Your task to perform on an android device: show emergency info Image 0: 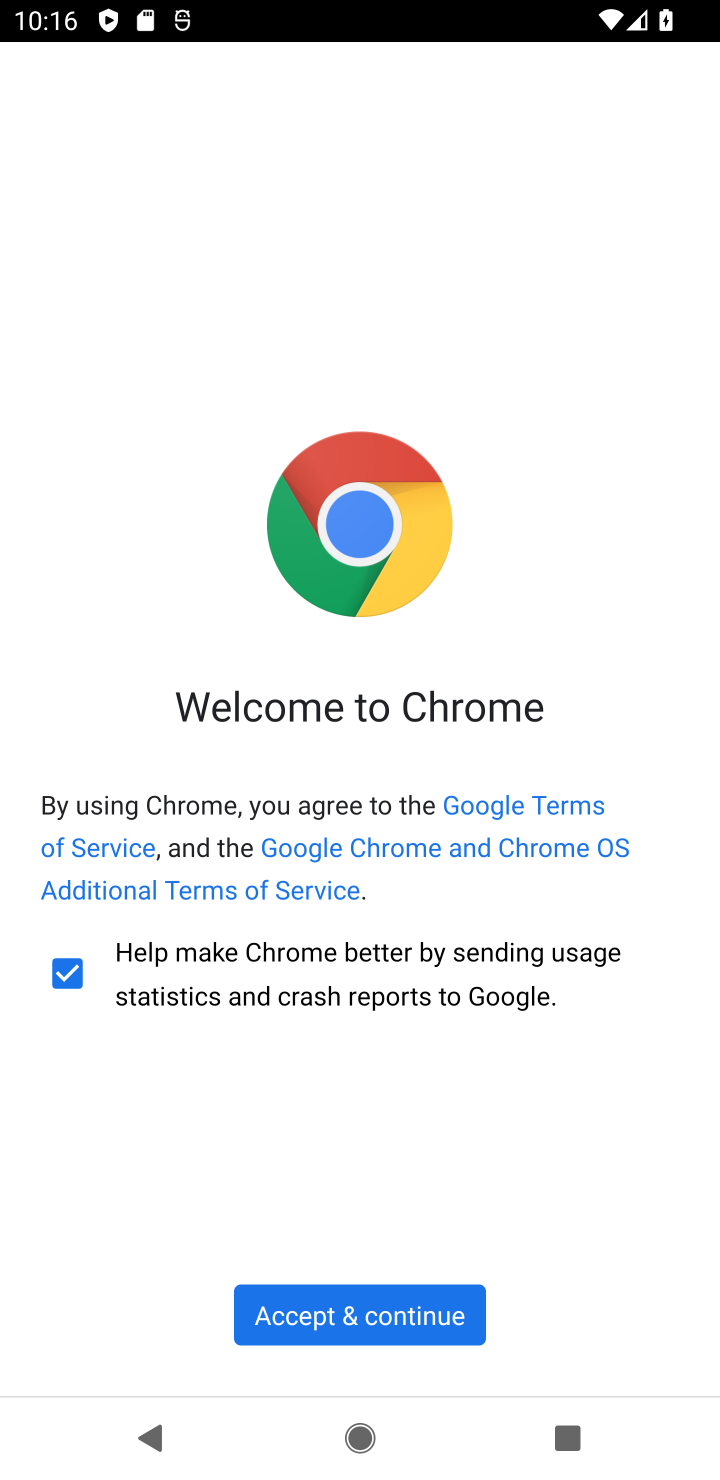
Step 0: press home button
Your task to perform on an android device: show emergency info Image 1: 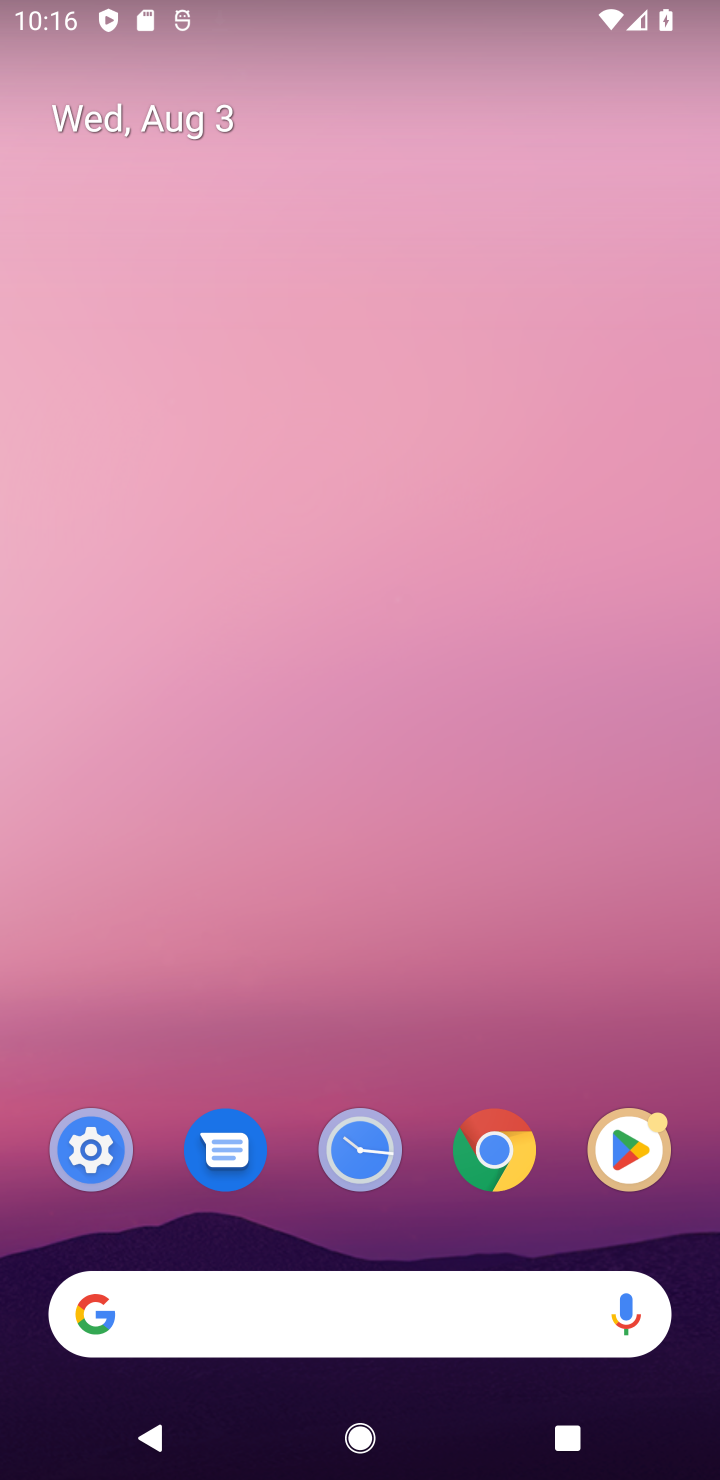
Step 1: drag from (556, 997) to (533, 299)
Your task to perform on an android device: show emergency info Image 2: 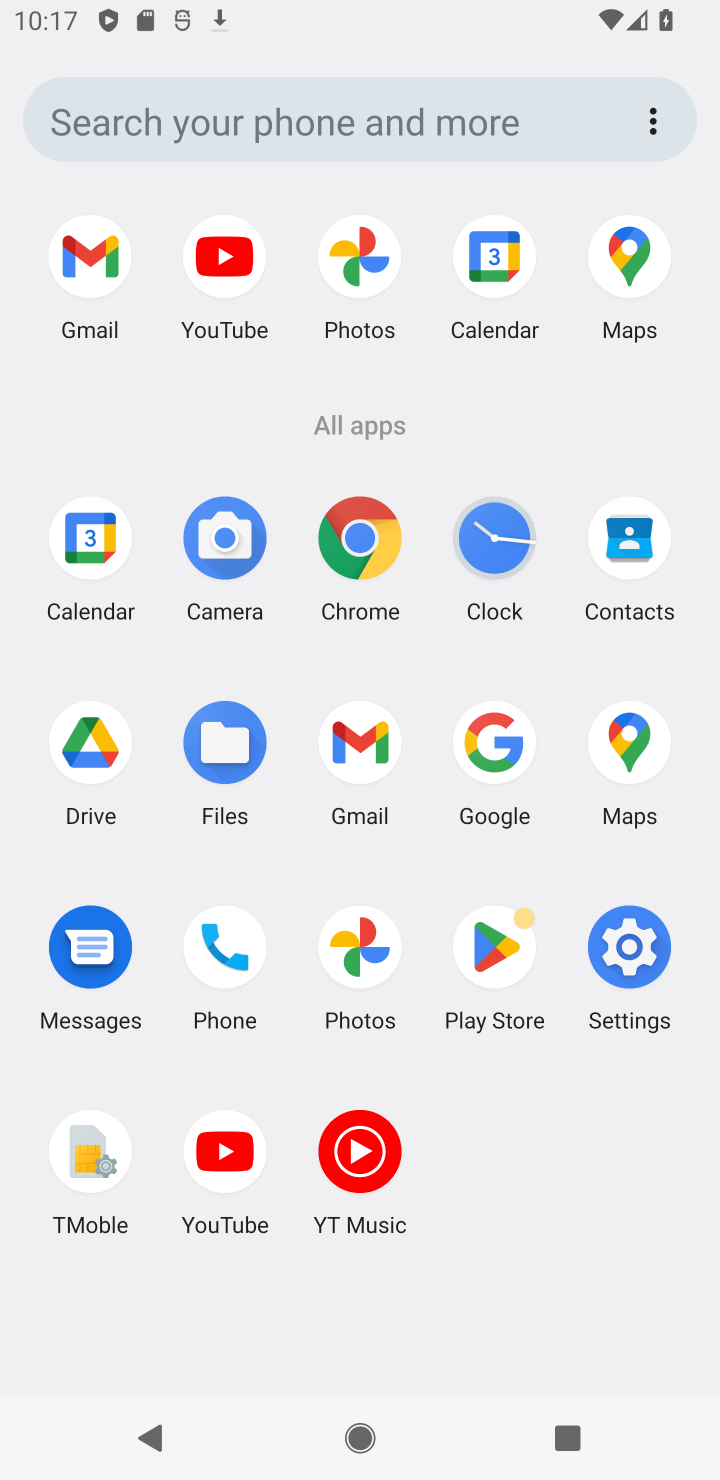
Step 2: click (627, 962)
Your task to perform on an android device: show emergency info Image 3: 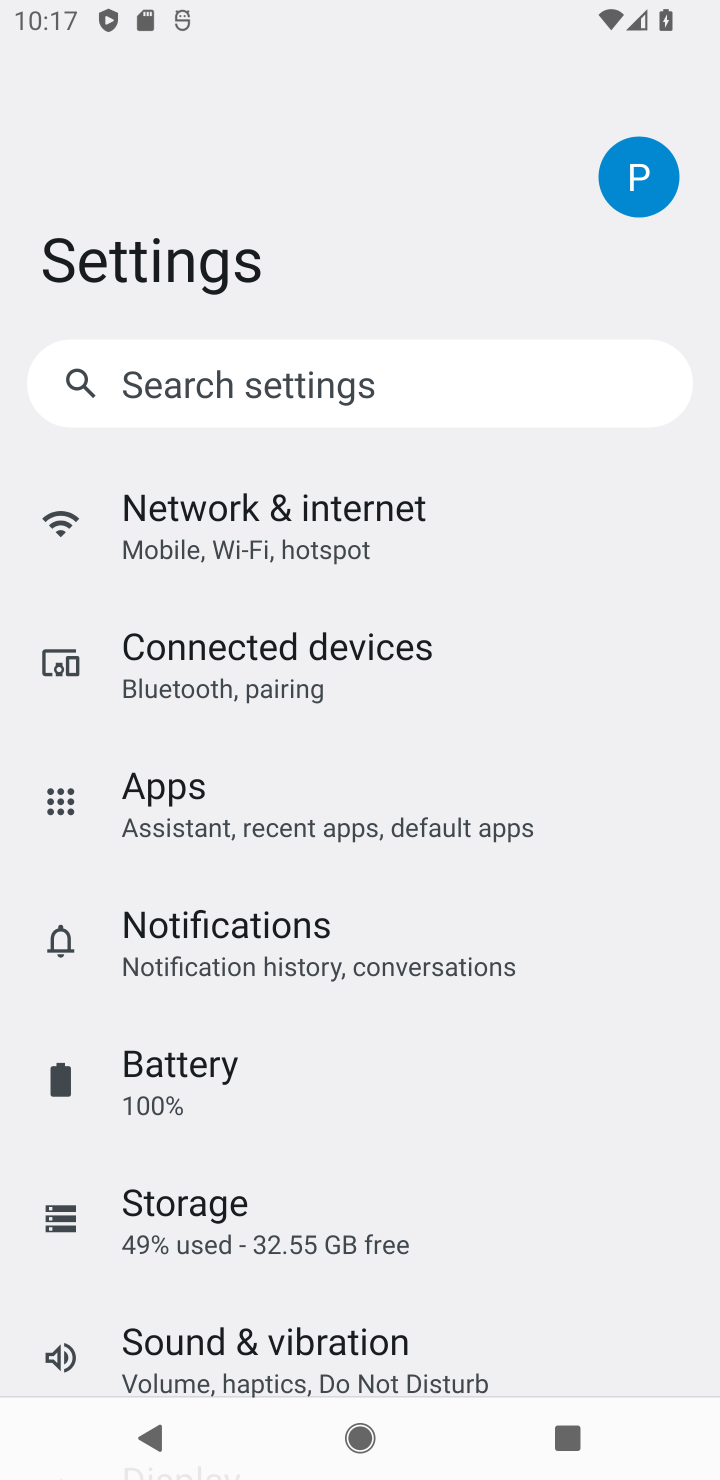
Step 3: drag from (615, 1059) to (615, 822)
Your task to perform on an android device: show emergency info Image 4: 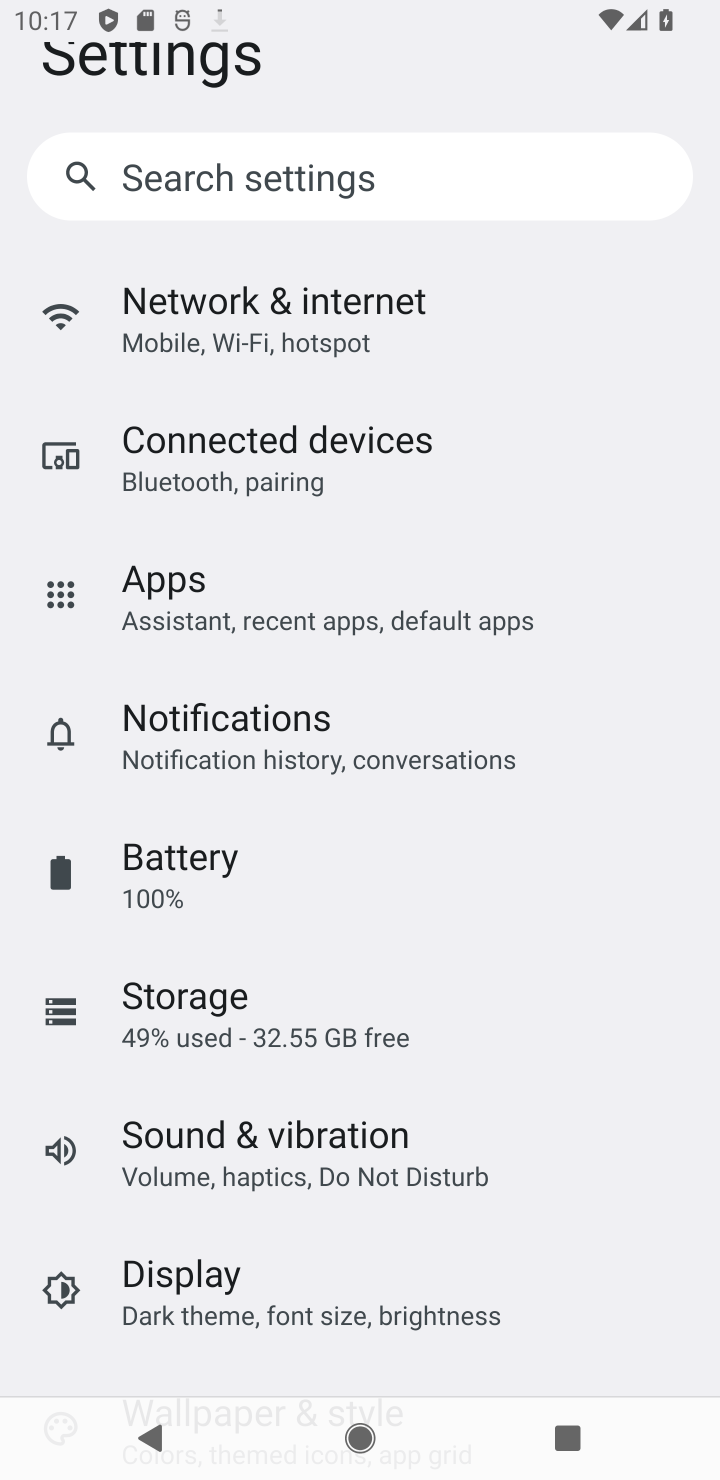
Step 4: drag from (579, 1015) to (574, 741)
Your task to perform on an android device: show emergency info Image 5: 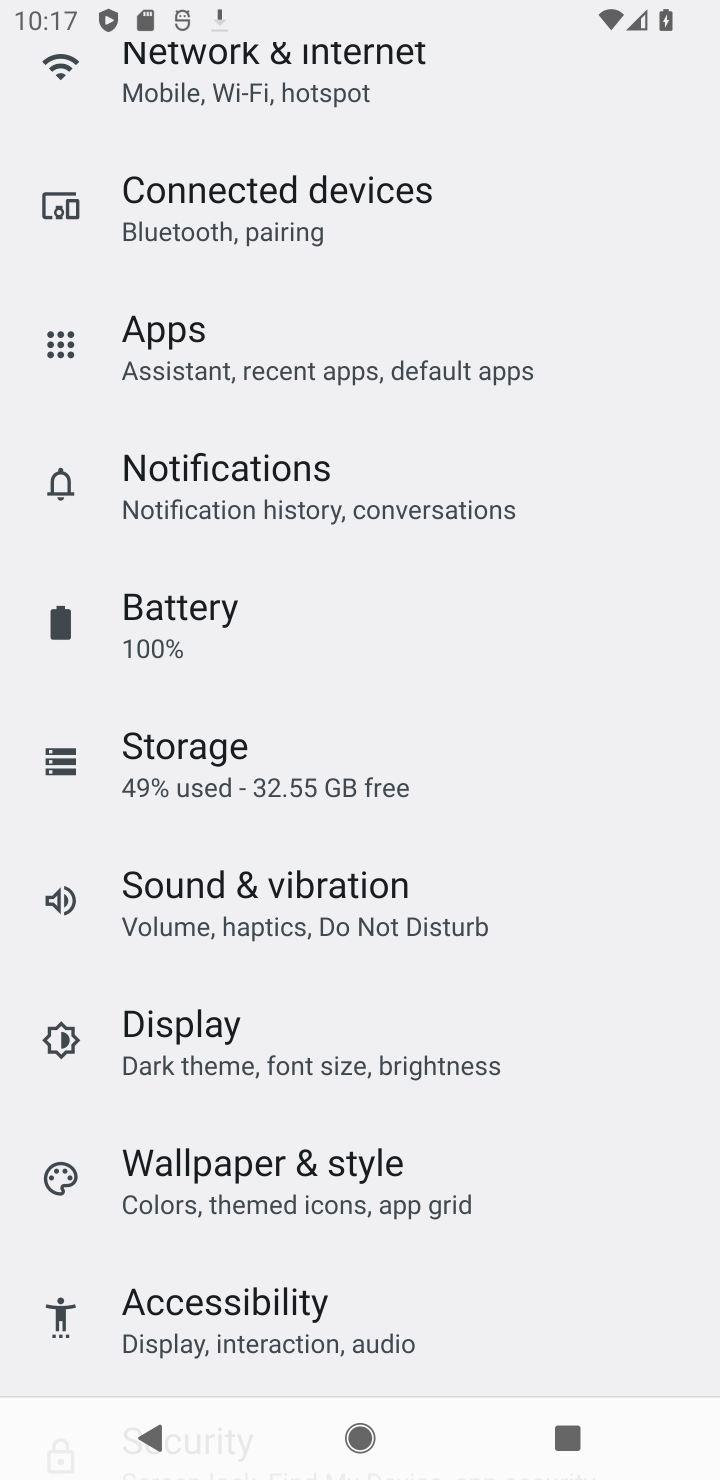
Step 5: drag from (627, 1134) to (616, 918)
Your task to perform on an android device: show emergency info Image 6: 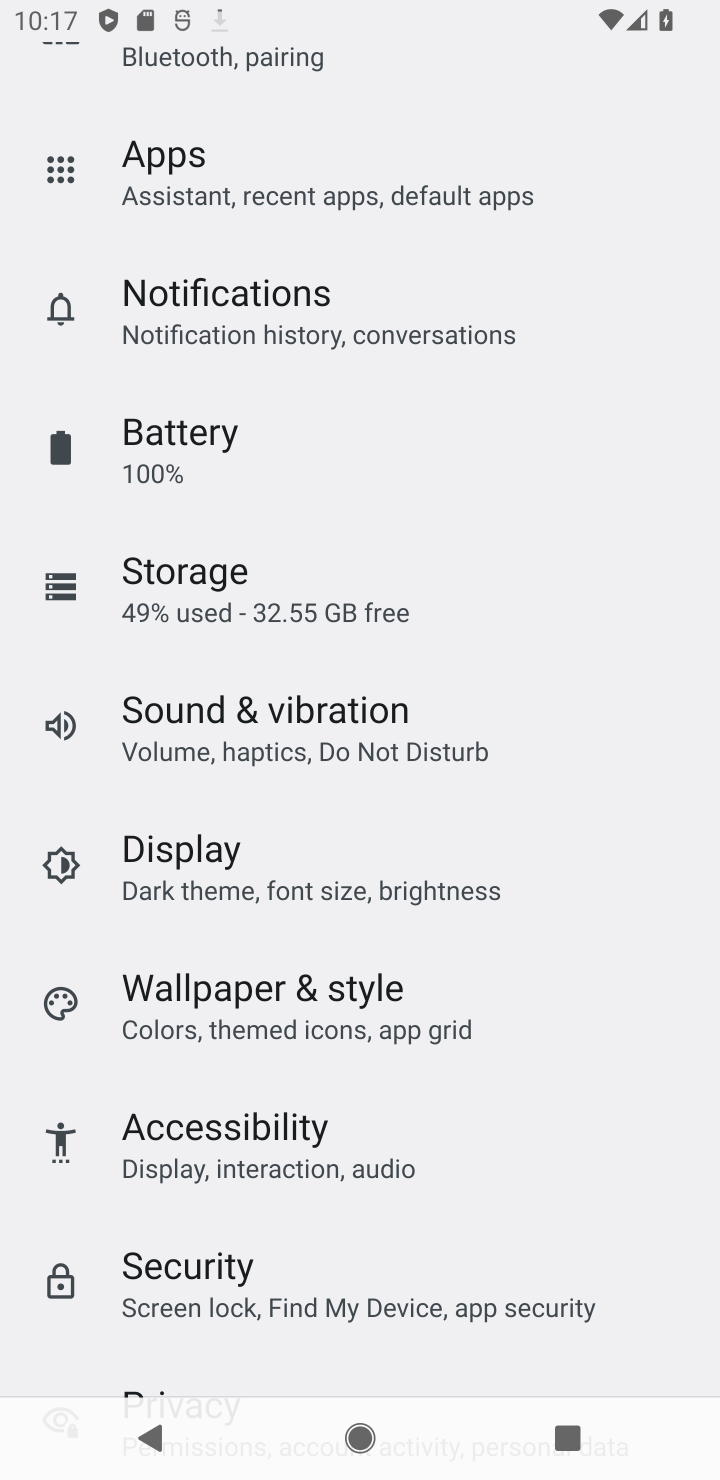
Step 6: drag from (604, 1246) to (610, 944)
Your task to perform on an android device: show emergency info Image 7: 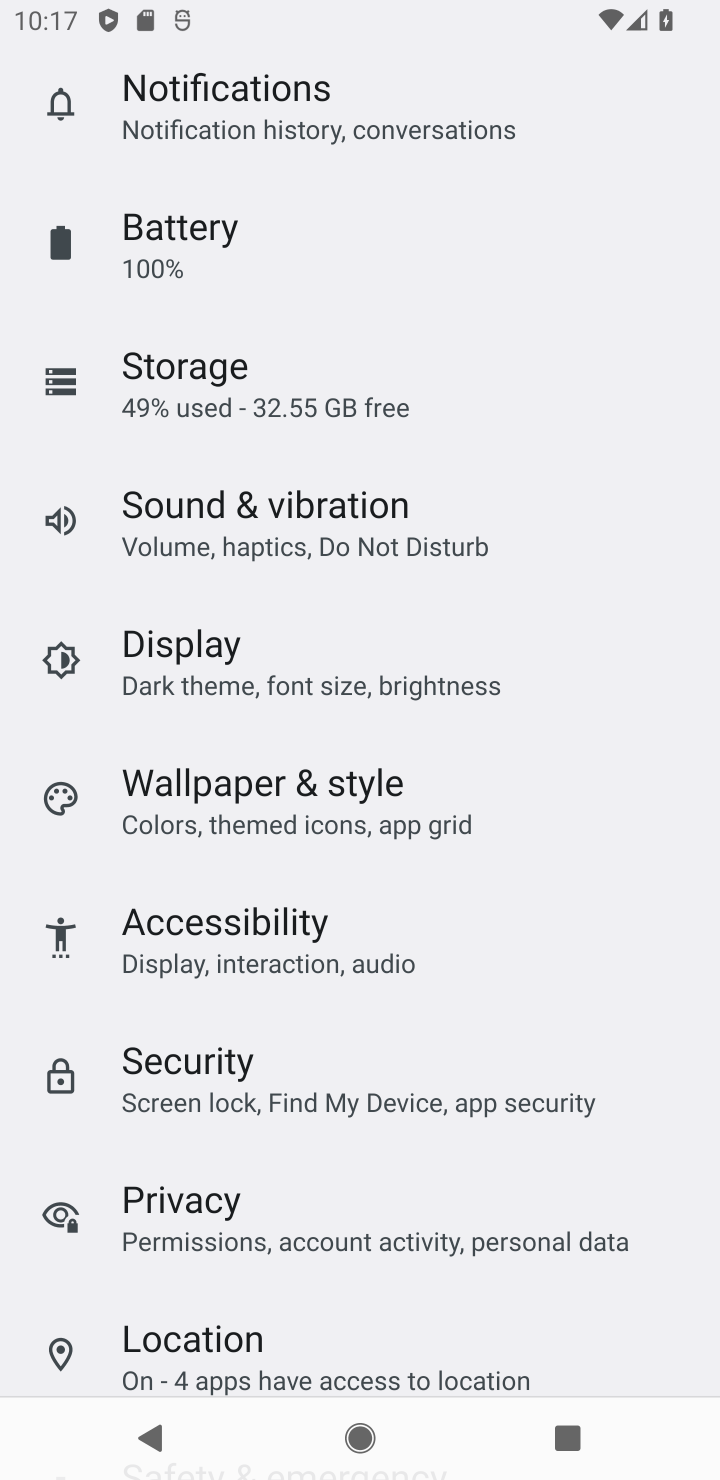
Step 7: drag from (640, 1265) to (640, 980)
Your task to perform on an android device: show emergency info Image 8: 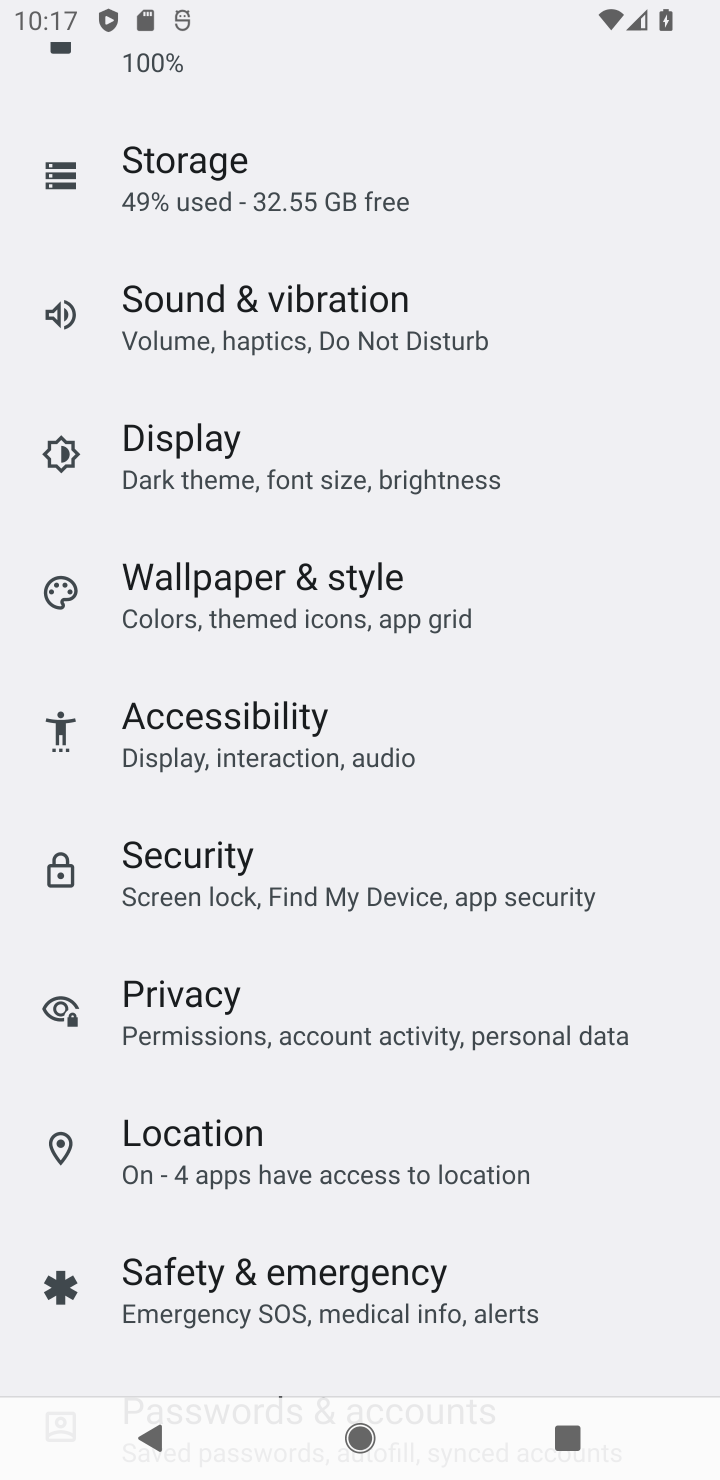
Step 8: drag from (623, 1287) to (606, 1028)
Your task to perform on an android device: show emergency info Image 9: 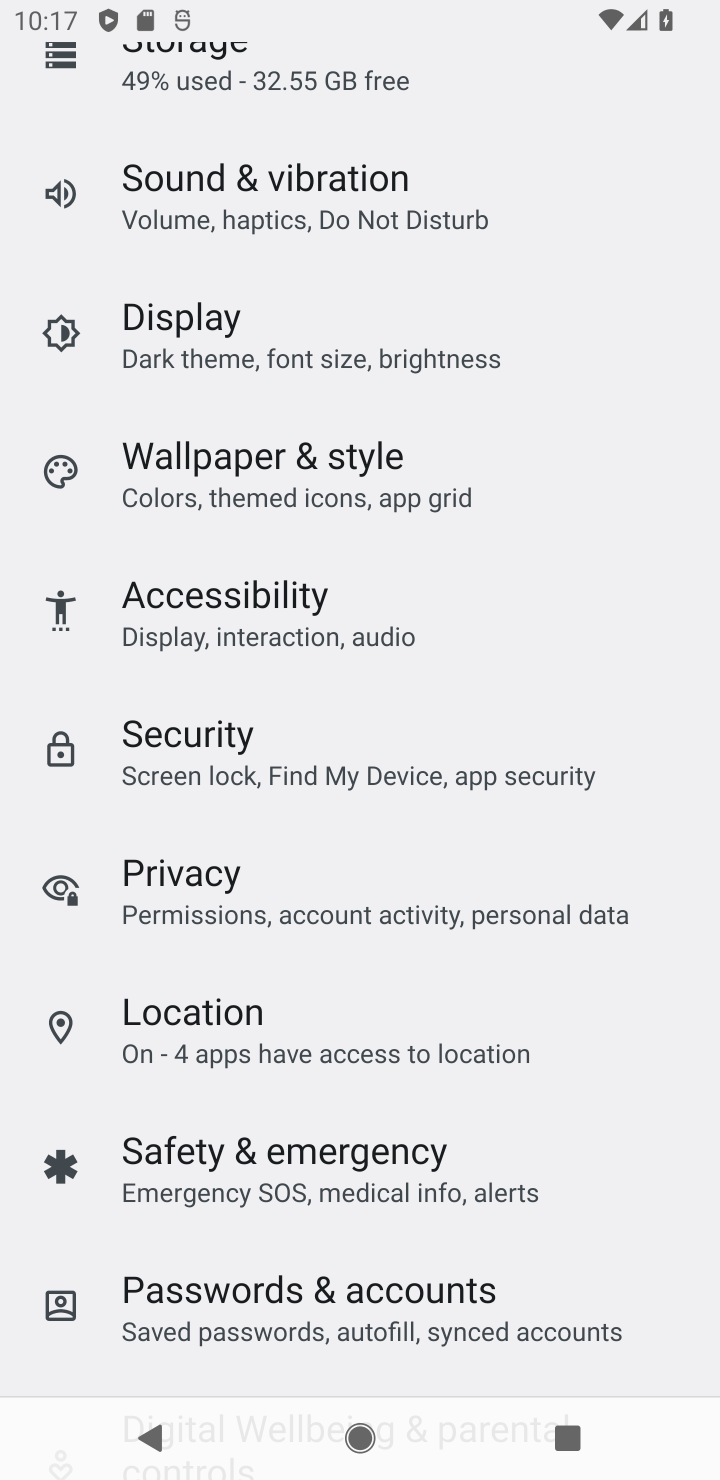
Step 9: drag from (639, 1332) to (647, 874)
Your task to perform on an android device: show emergency info Image 10: 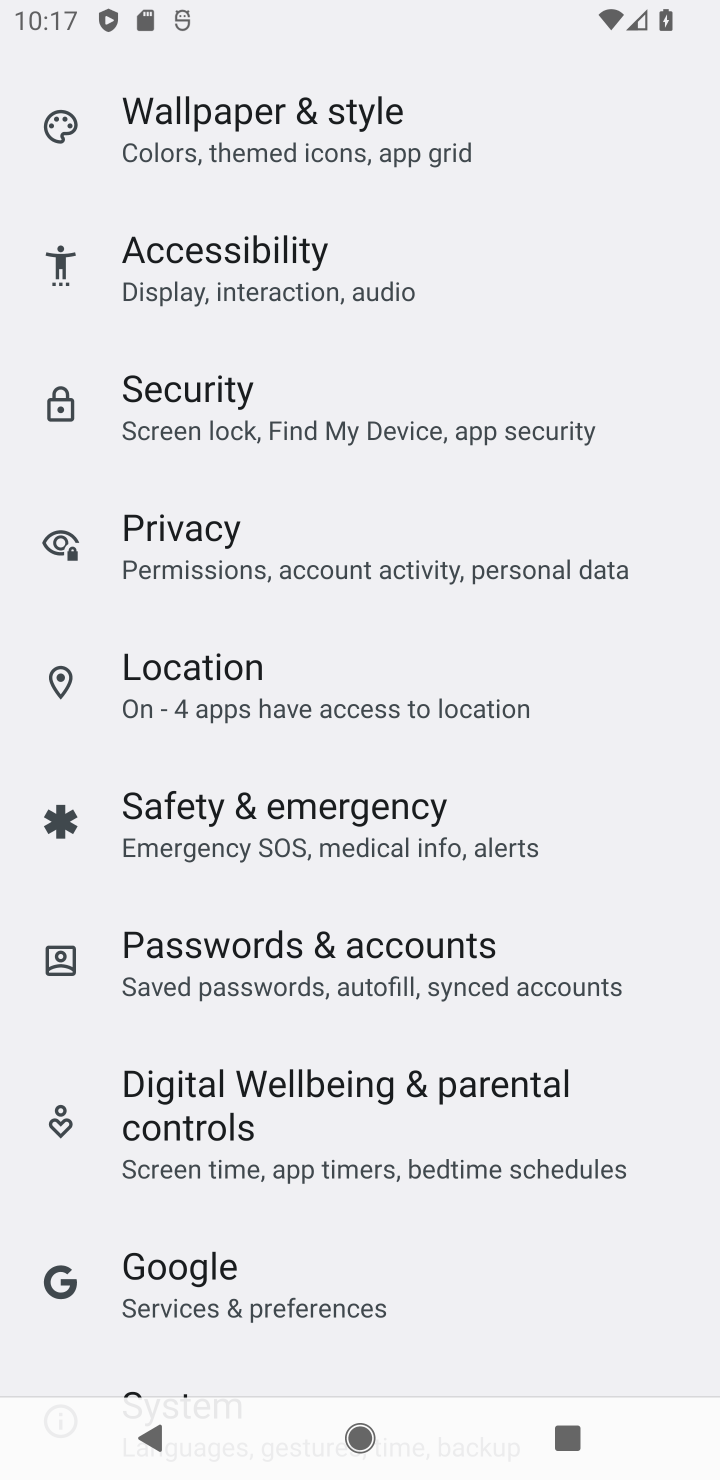
Step 10: drag from (598, 1264) to (614, 819)
Your task to perform on an android device: show emergency info Image 11: 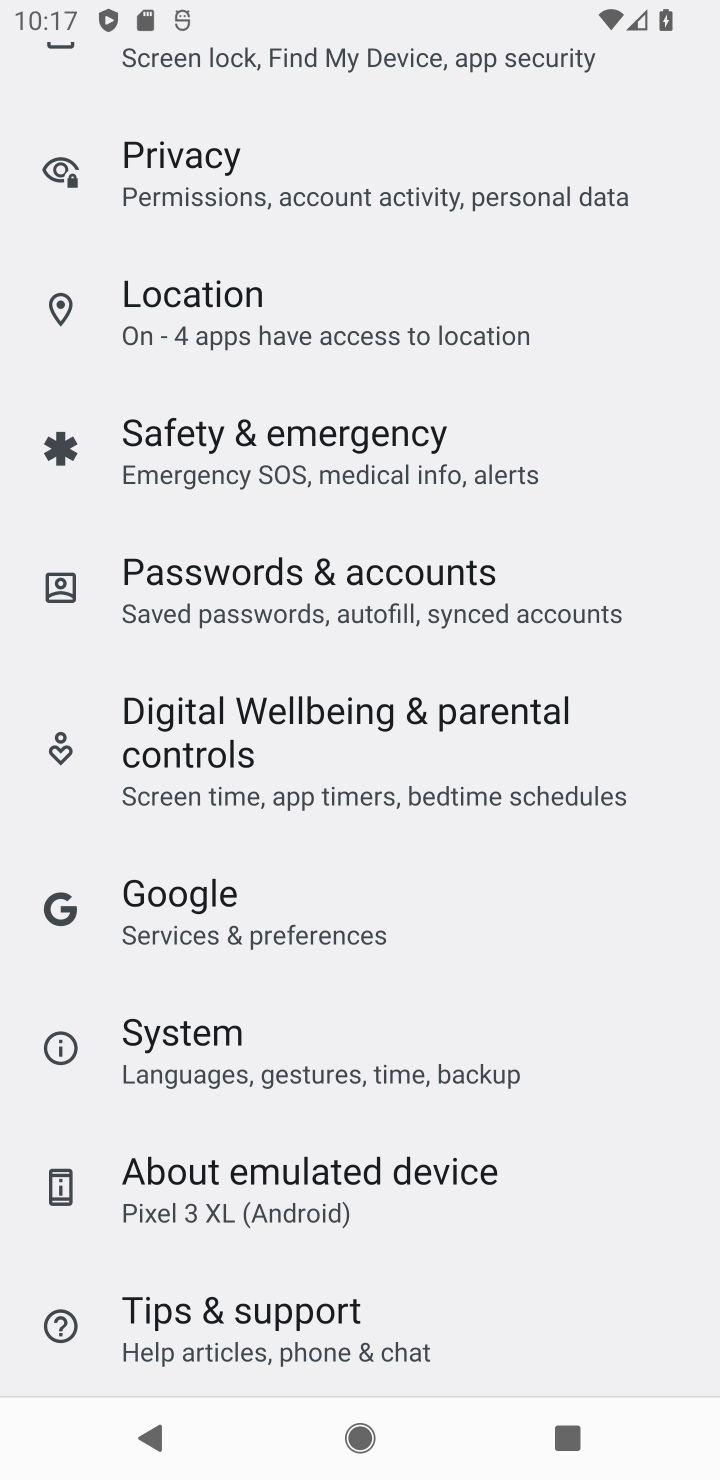
Step 11: click (465, 1191)
Your task to perform on an android device: show emergency info Image 12: 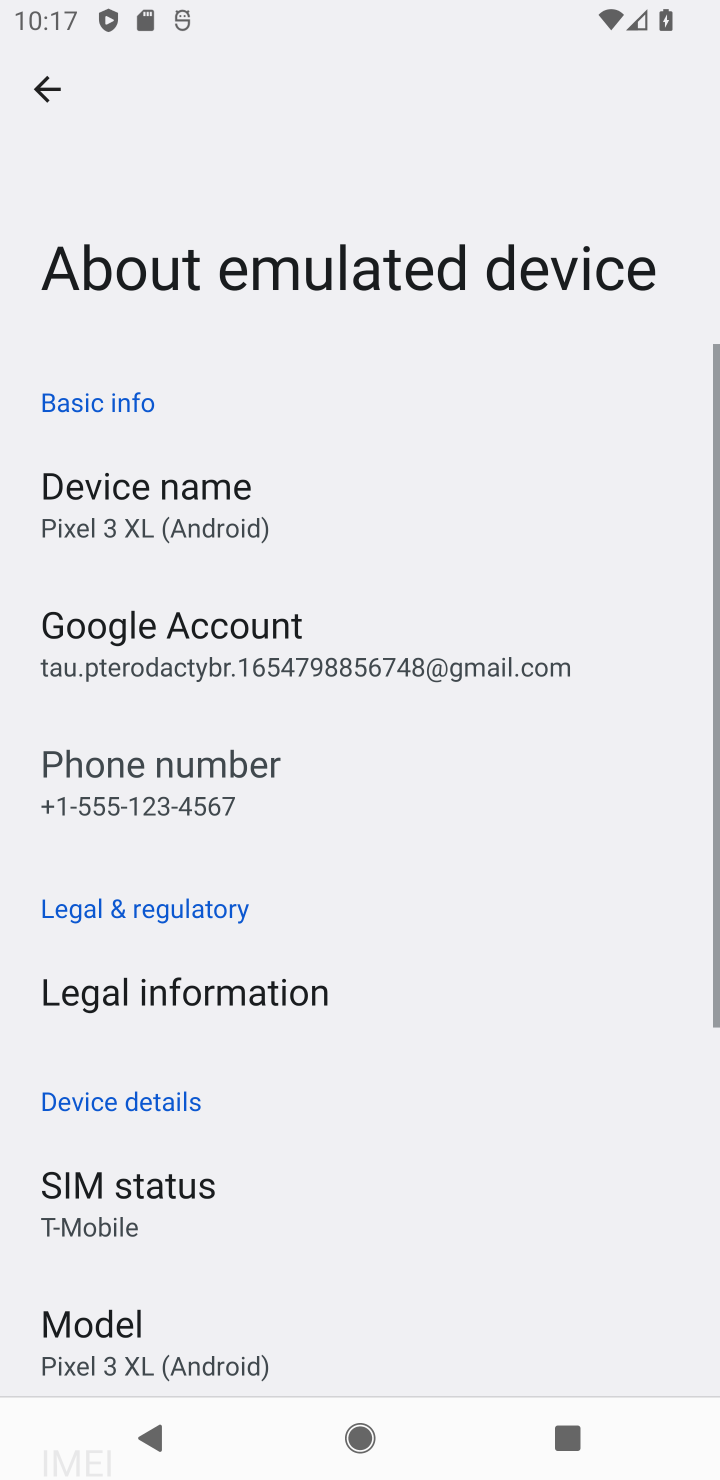
Step 12: drag from (497, 1119) to (518, 740)
Your task to perform on an android device: show emergency info Image 13: 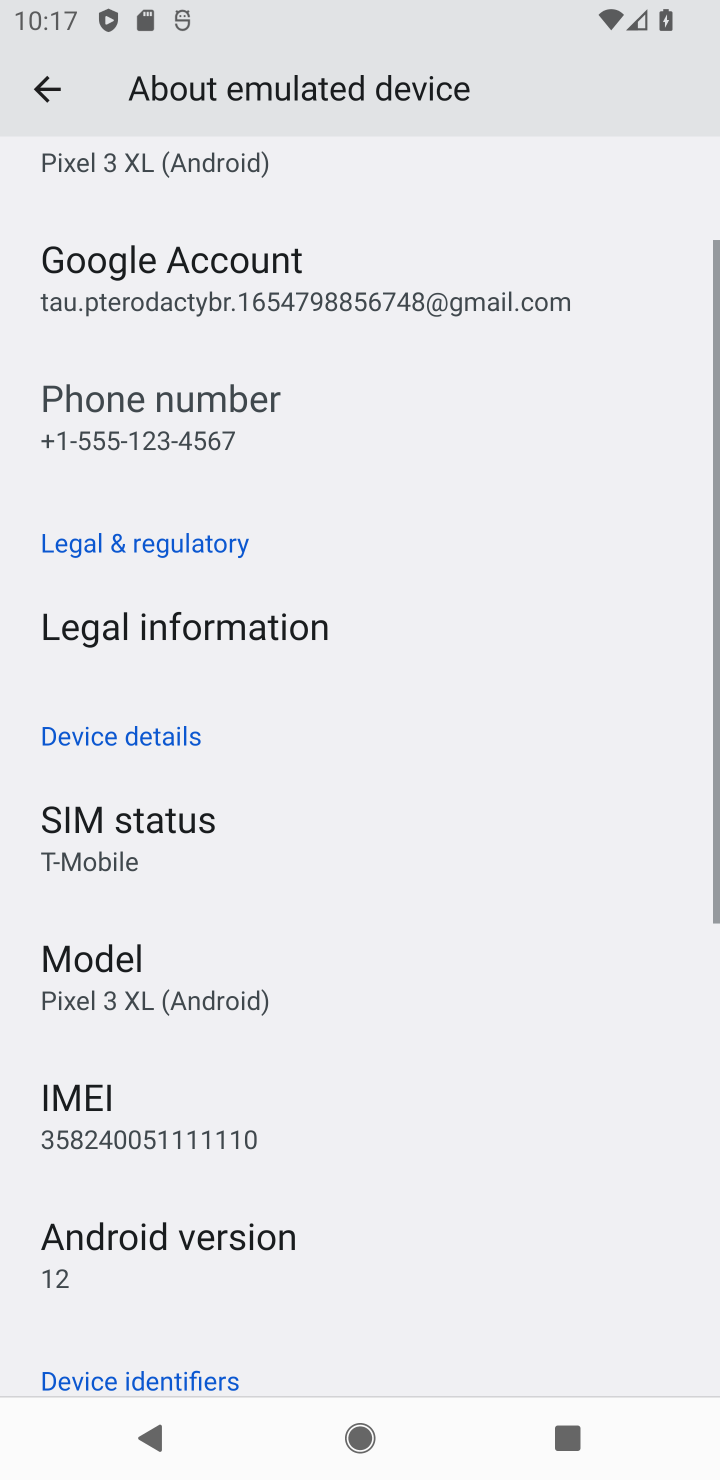
Step 13: drag from (512, 1091) to (509, 652)
Your task to perform on an android device: show emergency info Image 14: 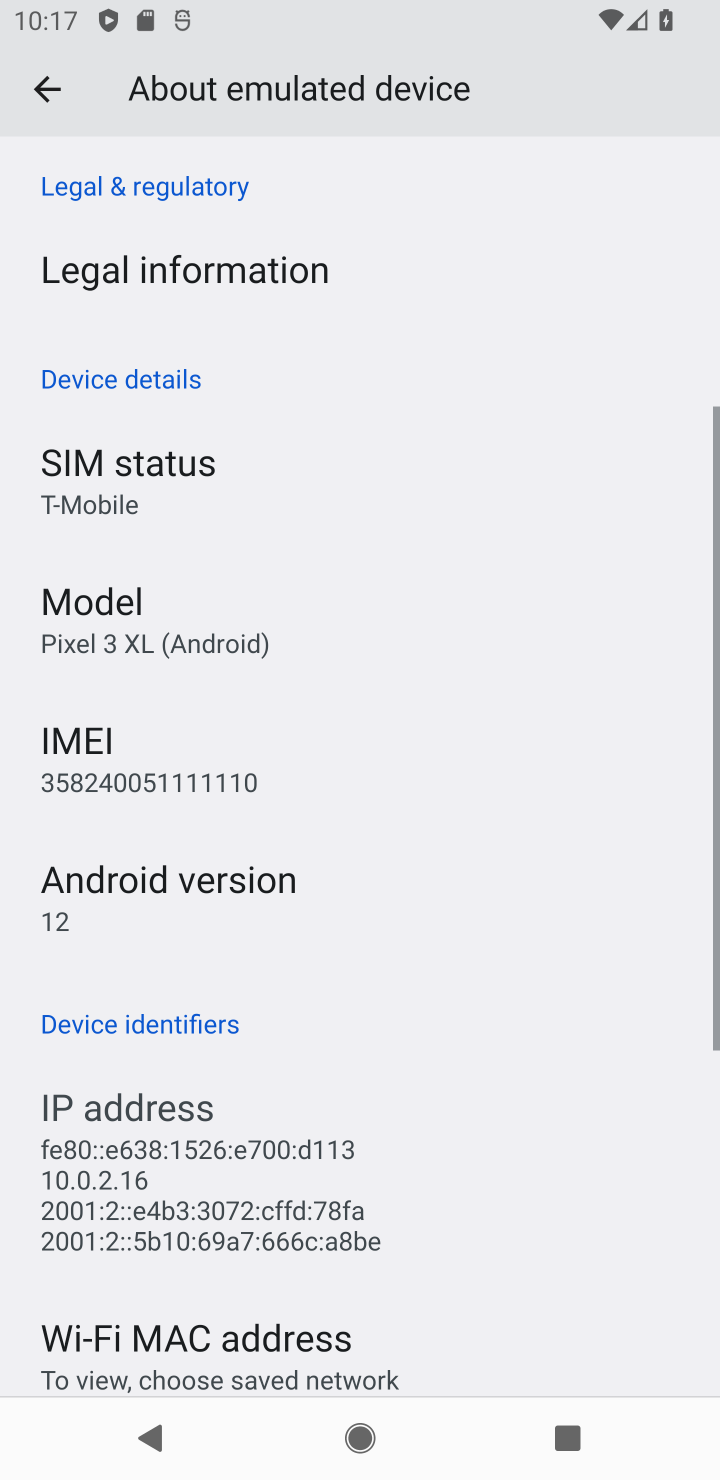
Step 14: drag from (497, 1045) to (572, 678)
Your task to perform on an android device: show emergency info Image 15: 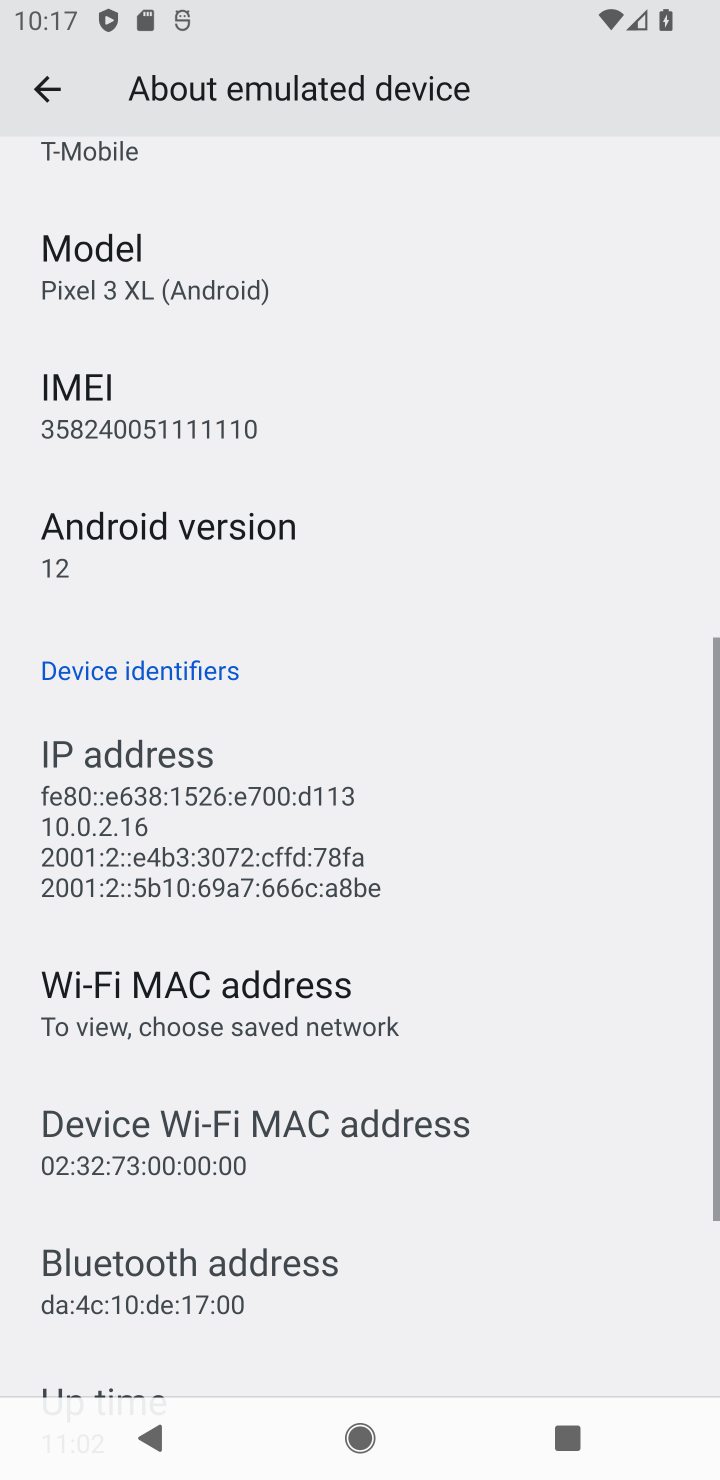
Step 15: drag from (537, 1222) to (575, 815)
Your task to perform on an android device: show emergency info Image 16: 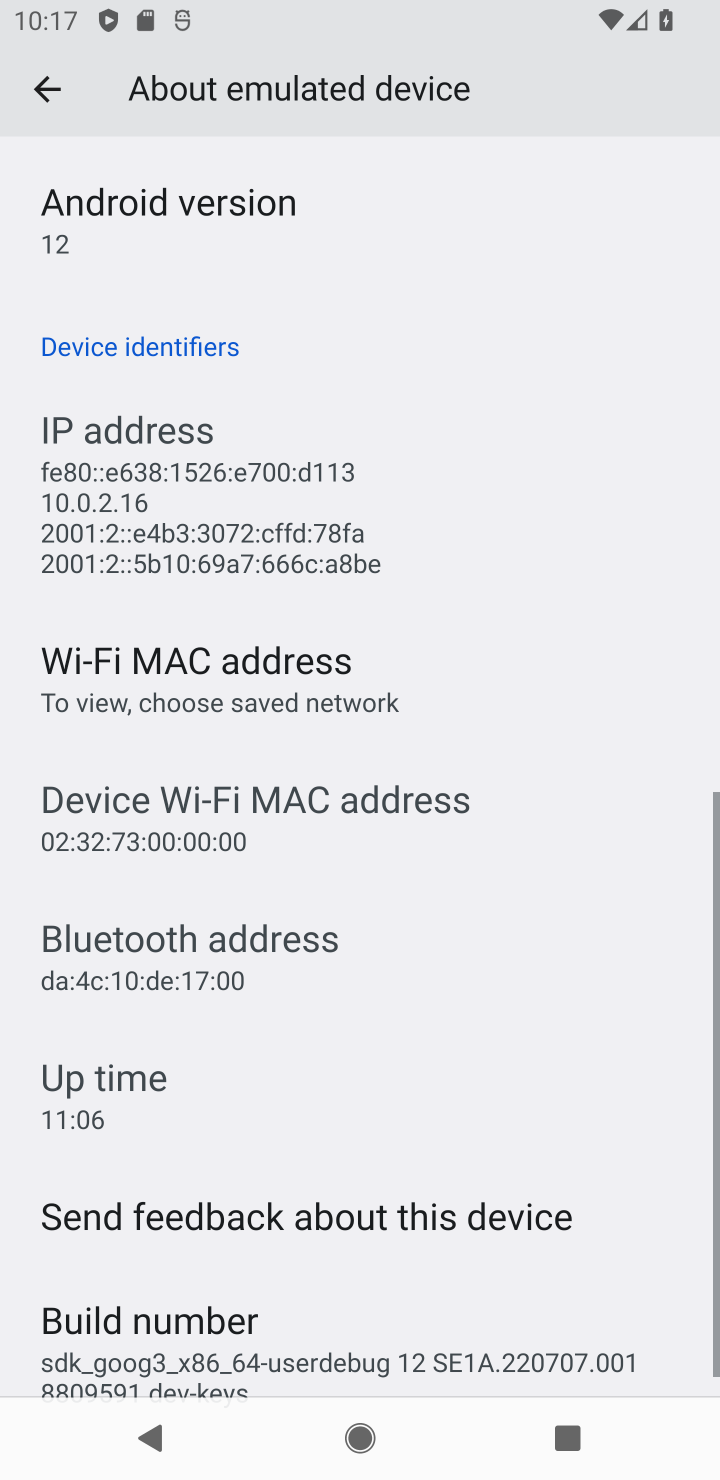
Step 16: drag from (527, 1289) to (520, 684)
Your task to perform on an android device: show emergency info Image 17: 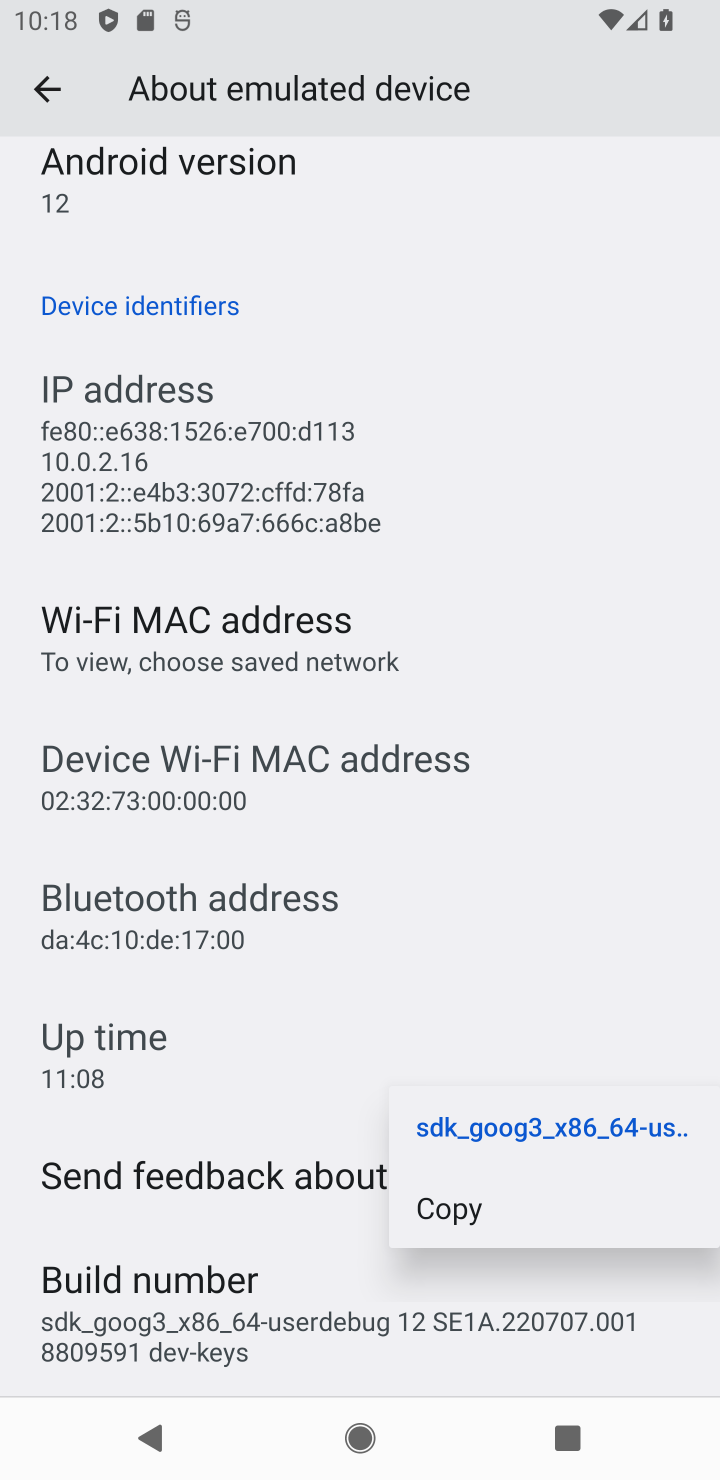
Step 17: drag from (547, 999) to (558, 523)
Your task to perform on an android device: show emergency info Image 18: 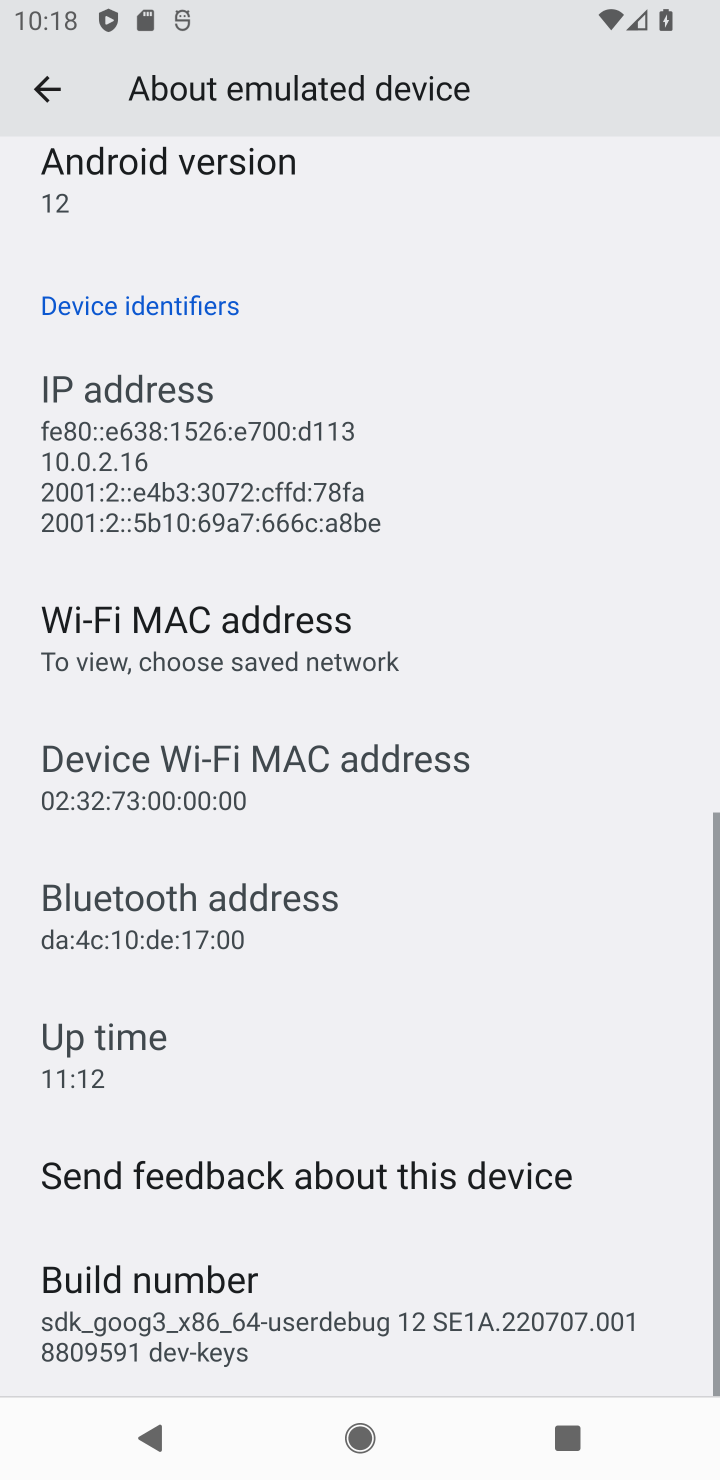
Step 18: drag from (565, 467) to (587, 909)
Your task to perform on an android device: show emergency info Image 19: 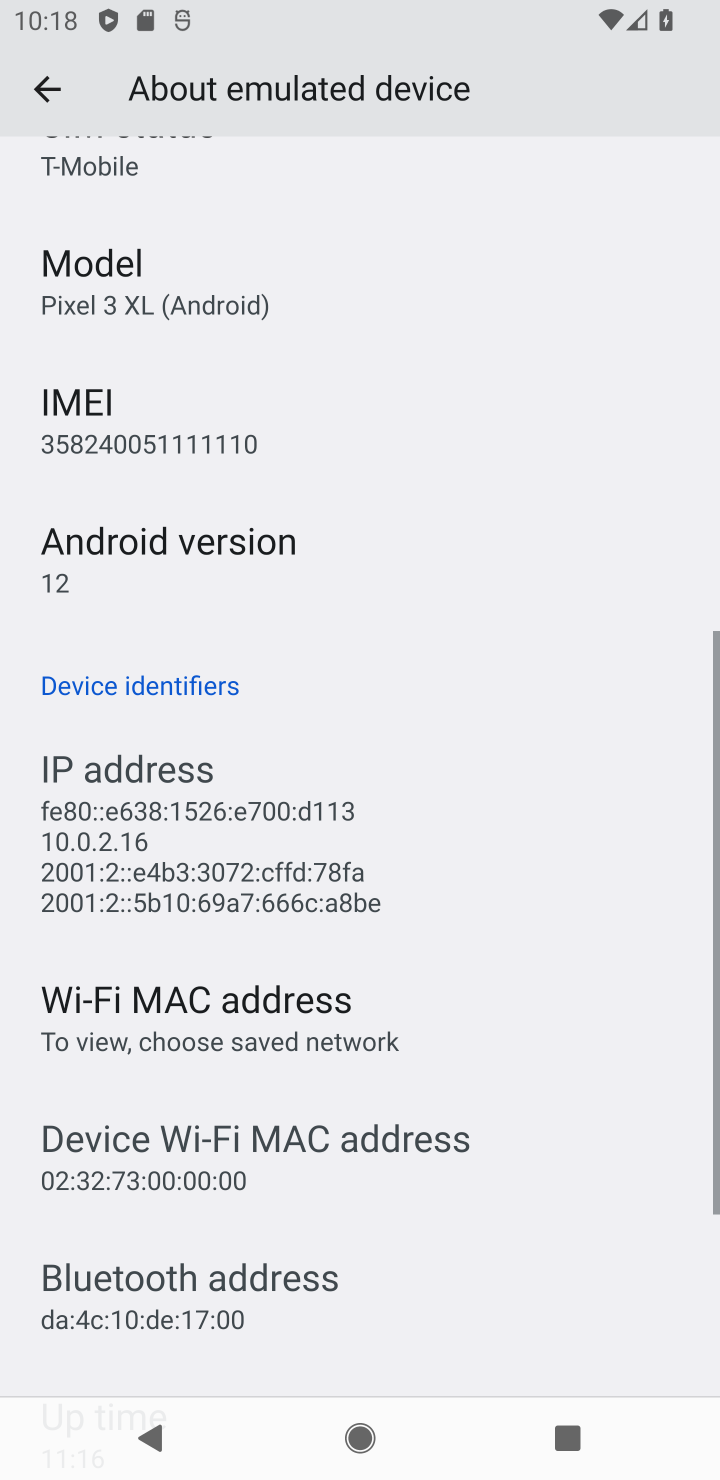
Step 19: drag from (548, 391) to (561, 1057)
Your task to perform on an android device: show emergency info Image 20: 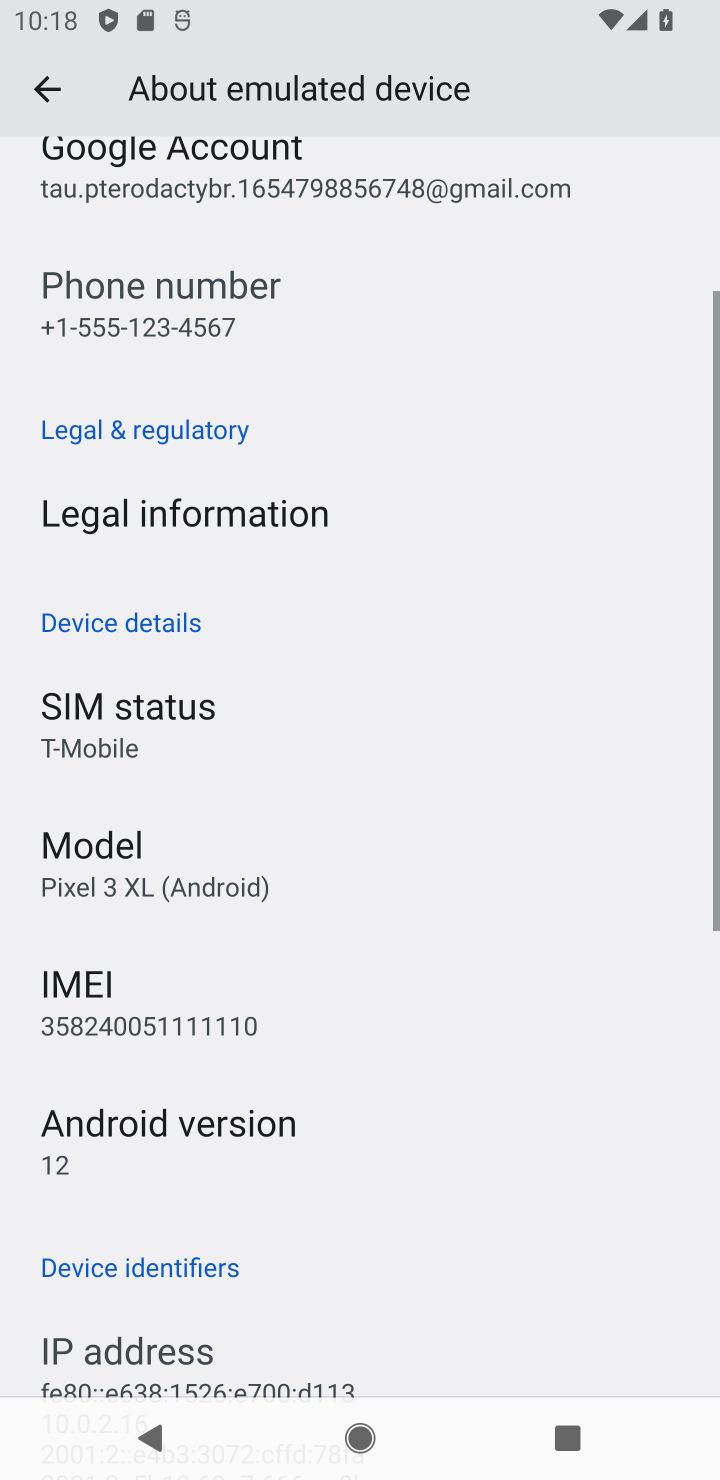
Step 20: drag from (573, 387) to (575, 890)
Your task to perform on an android device: show emergency info Image 21: 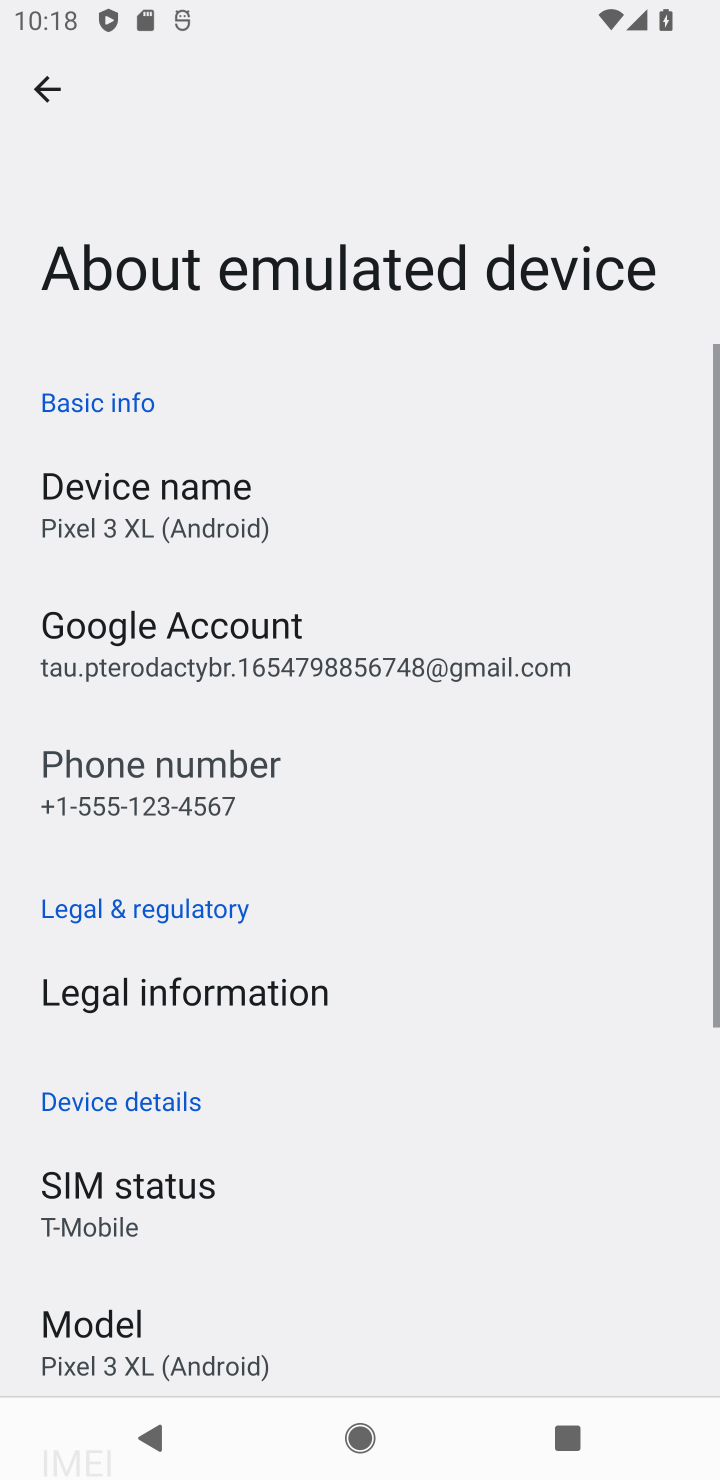
Step 21: click (47, 83)
Your task to perform on an android device: show emergency info Image 22: 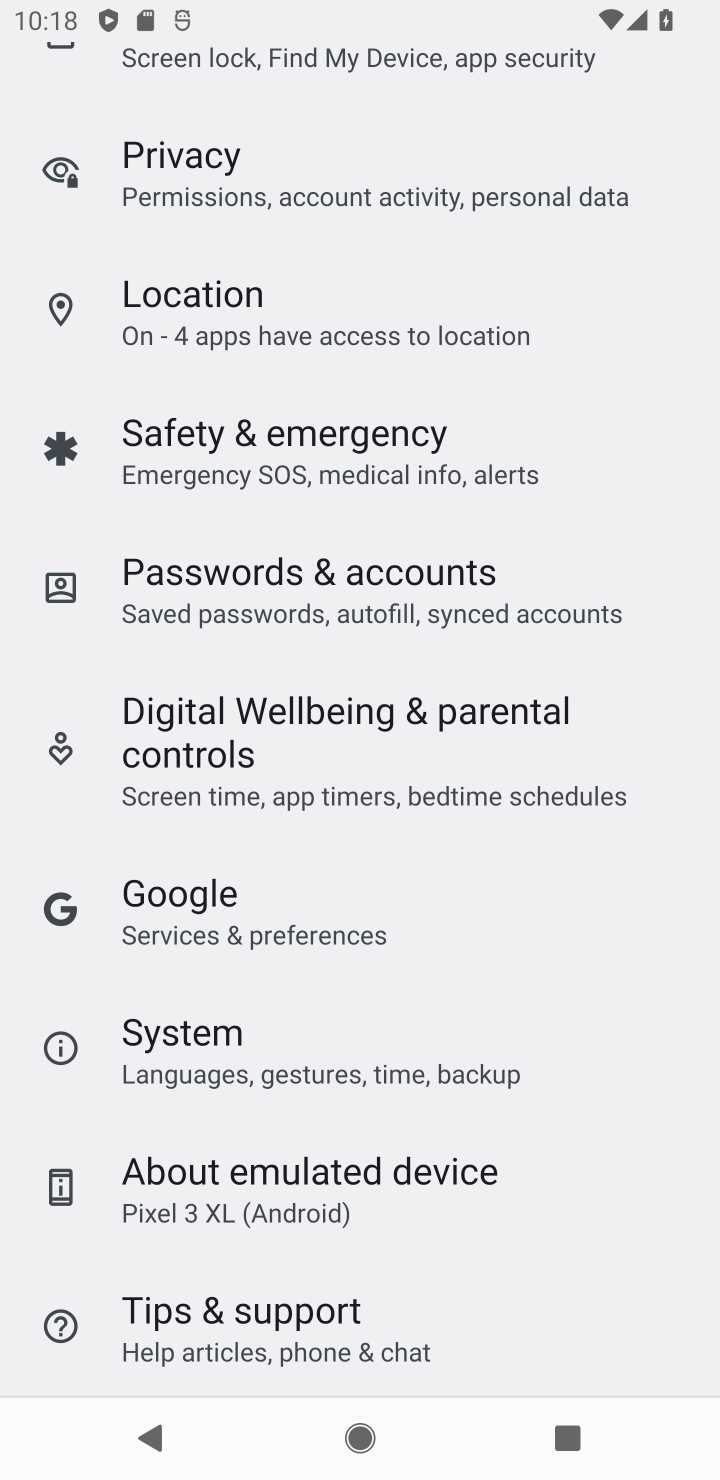
Step 22: click (258, 1058)
Your task to perform on an android device: show emergency info Image 23: 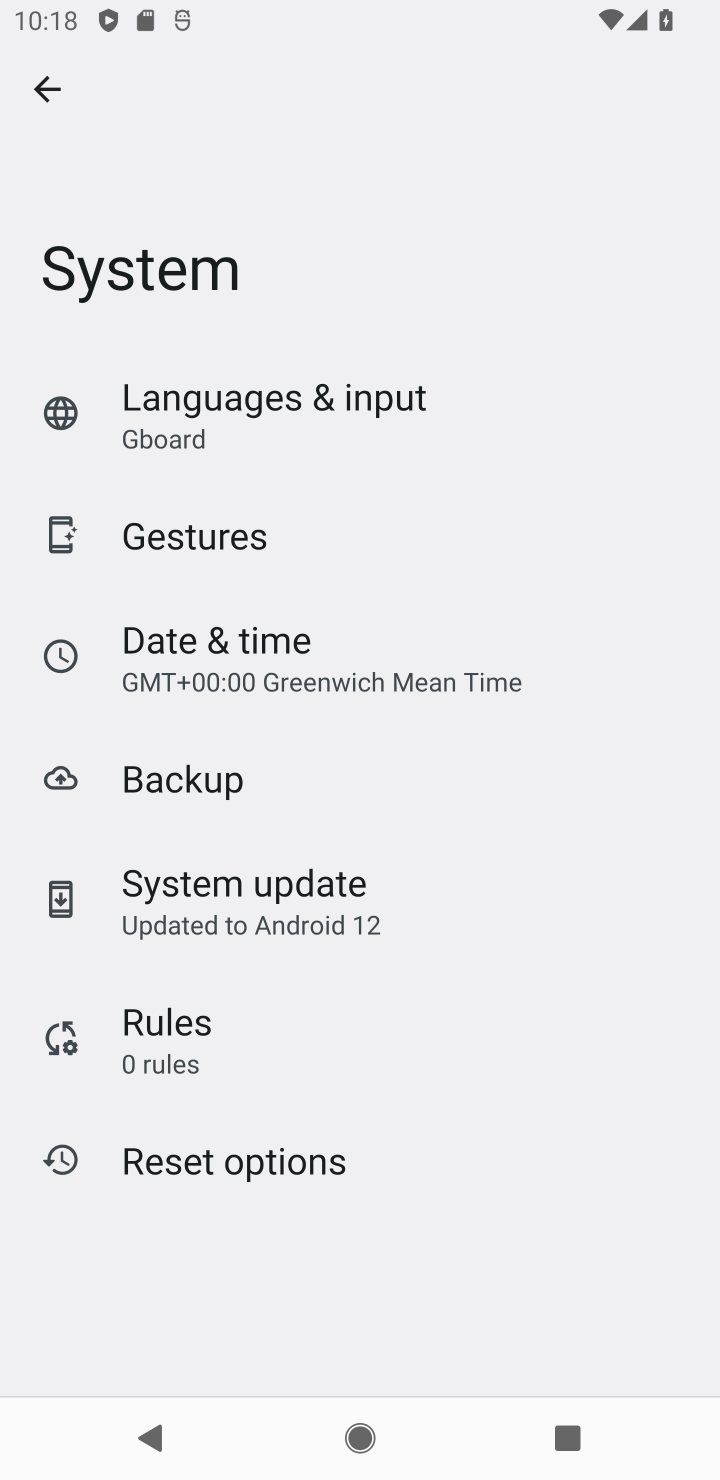
Step 23: task complete